Your task to perform on an android device: turn notification dots on Image 0: 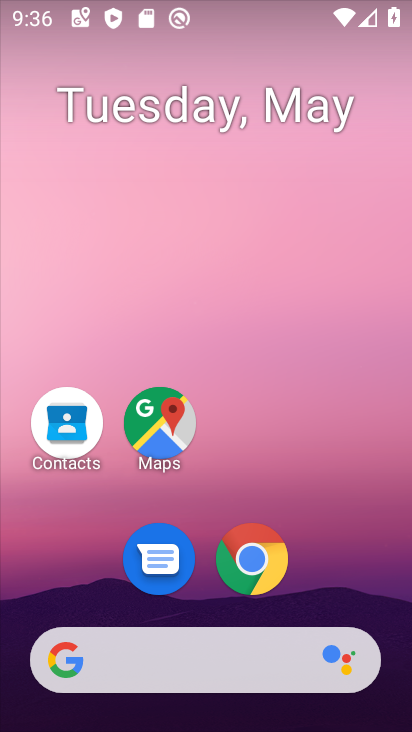
Step 0: drag from (360, 595) to (290, 88)
Your task to perform on an android device: turn notification dots on Image 1: 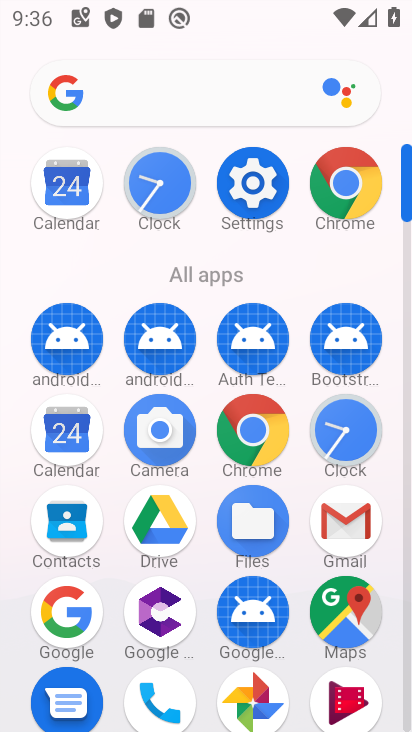
Step 1: click (254, 184)
Your task to perform on an android device: turn notification dots on Image 2: 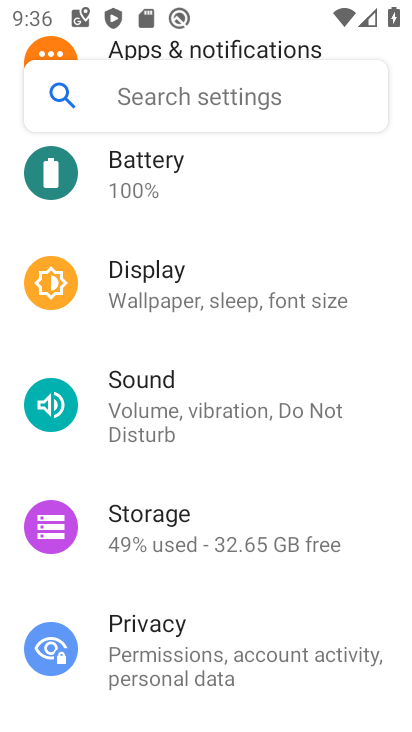
Step 2: click (233, 49)
Your task to perform on an android device: turn notification dots on Image 3: 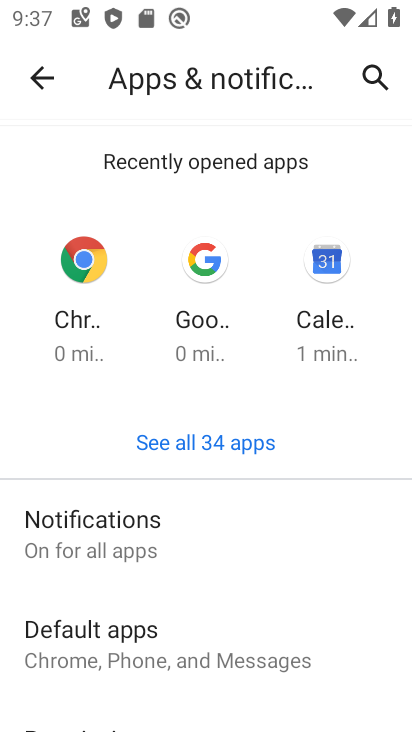
Step 3: task complete